Your task to perform on an android device: star an email in the gmail app Image 0: 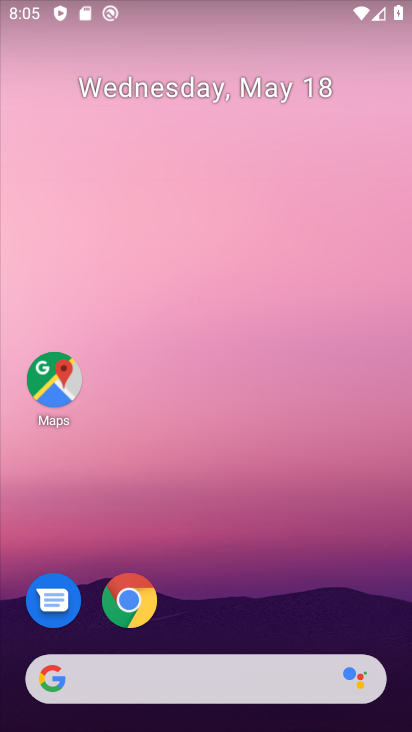
Step 0: drag from (11, 623) to (236, 169)
Your task to perform on an android device: star an email in the gmail app Image 1: 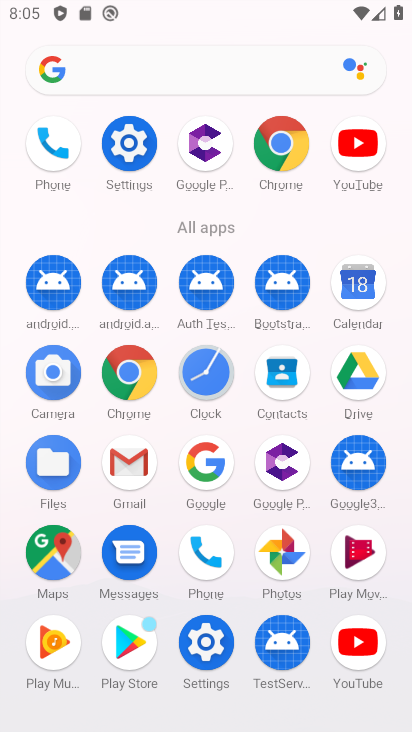
Step 1: click (103, 486)
Your task to perform on an android device: star an email in the gmail app Image 2: 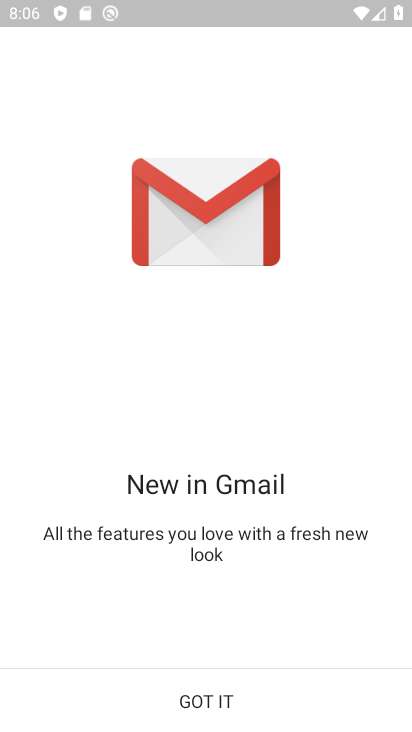
Step 2: click (160, 664)
Your task to perform on an android device: star an email in the gmail app Image 3: 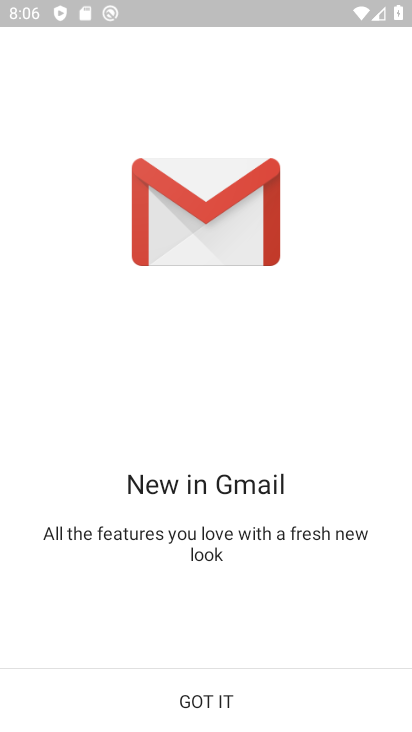
Step 3: click (154, 694)
Your task to perform on an android device: star an email in the gmail app Image 4: 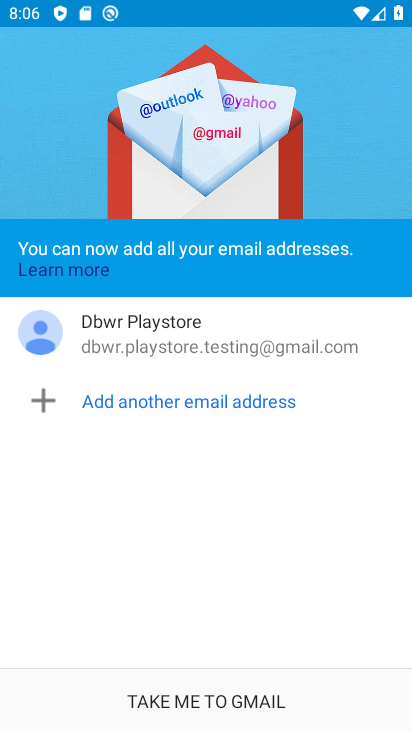
Step 4: click (170, 709)
Your task to perform on an android device: star an email in the gmail app Image 5: 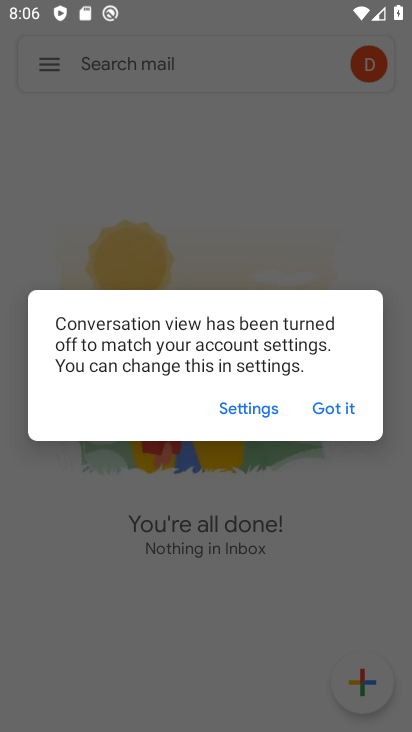
Step 5: click (314, 409)
Your task to perform on an android device: star an email in the gmail app Image 6: 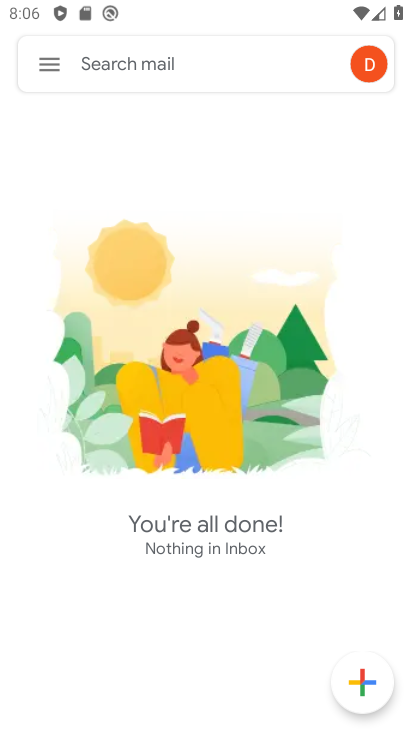
Step 6: click (38, 75)
Your task to perform on an android device: star an email in the gmail app Image 7: 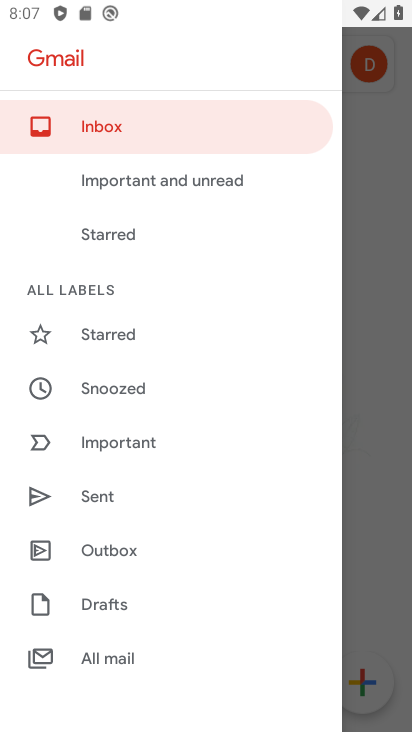
Step 7: click (126, 657)
Your task to perform on an android device: star an email in the gmail app Image 8: 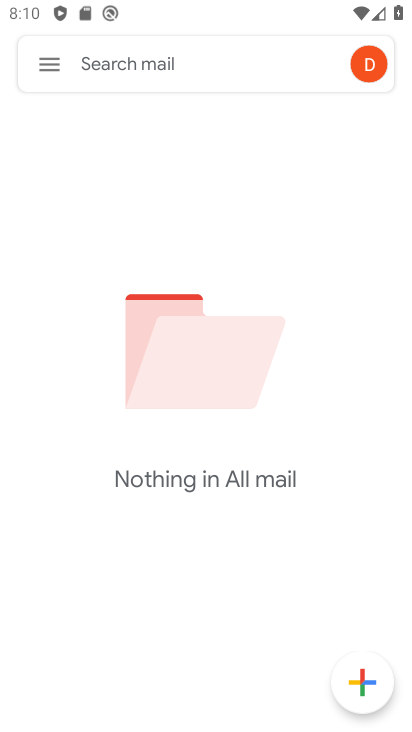
Step 8: click (50, 70)
Your task to perform on an android device: star an email in the gmail app Image 9: 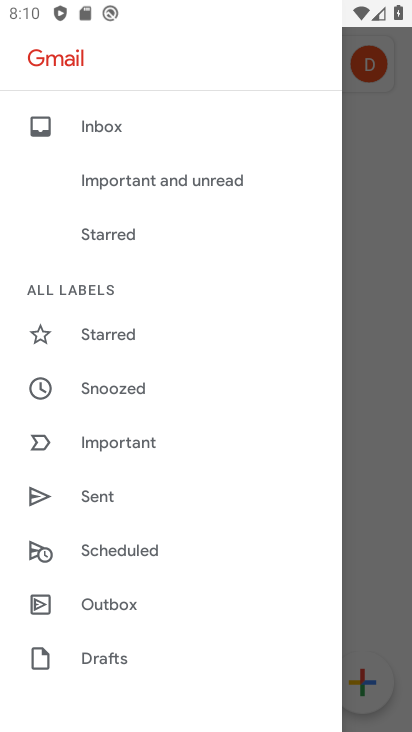
Step 9: task complete